Your task to perform on an android device: refresh tabs in the chrome app Image 0: 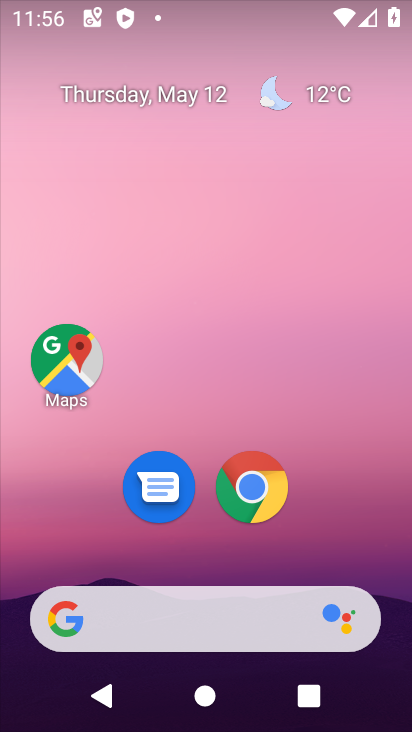
Step 0: click (253, 502)
Your task to perform on an android device: refresh tabs in the chrome app Image 1: 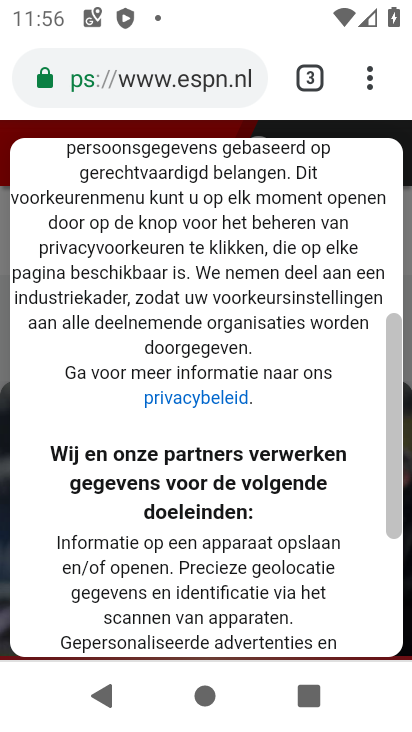
Step 1: click (368, 82)
Your task to perform on an android device: refresh tabs in the chrome app Image 2: 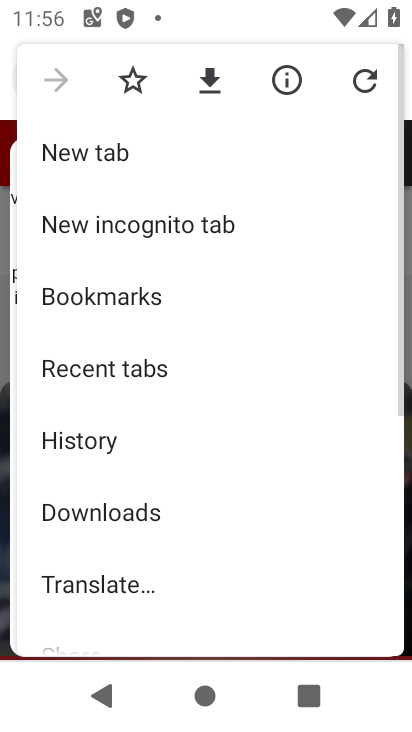
Step 2: click (371, 85)
Your task to perform on an android device: refresh tabs in the chrome app Image 3: 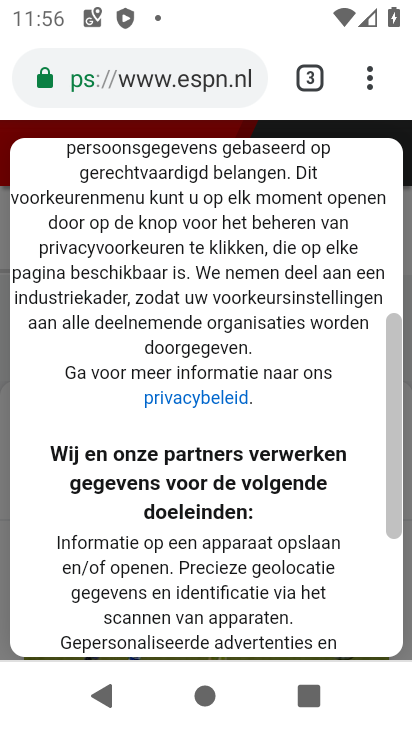
Step 3: task complete